Your task to perform on an android device: When is my next meeting? Image 0: 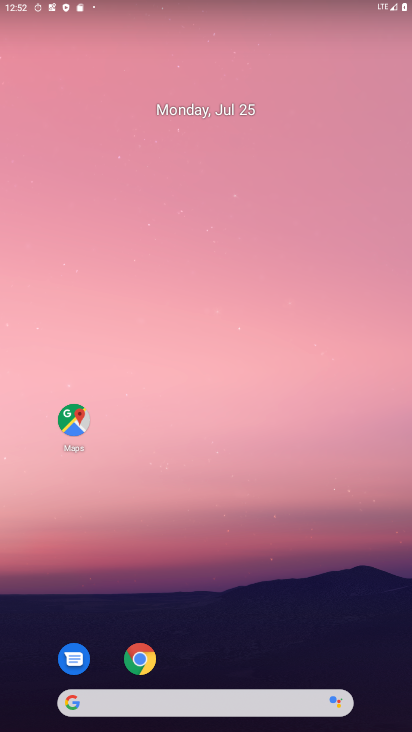
Step 0: drag from (86, 477) to (186, 135)
Your task to perform on an android device: When is my next meeting? Image 1: 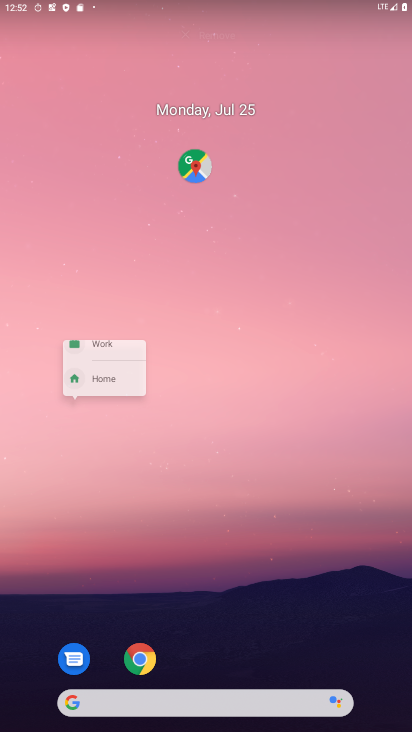
Step 1: drag from (43, 590) to (204, 171)
Your task to perform on an android device: When is my next meeting? Image 2: 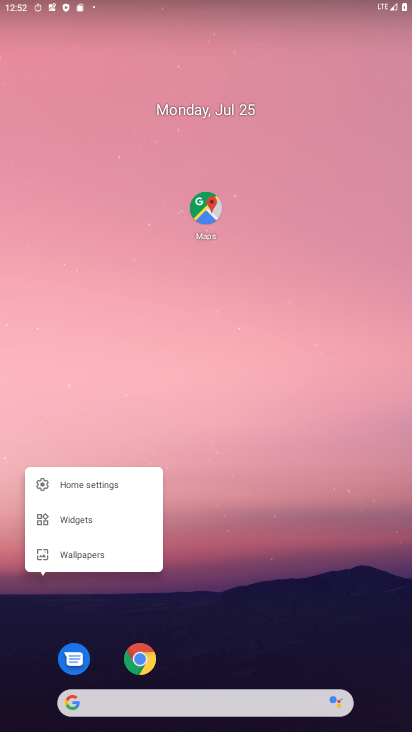
Step 2: drag from (44, 602) to (296, 21)
Your task to perform on an android device: When is my next meeting? Image 3: 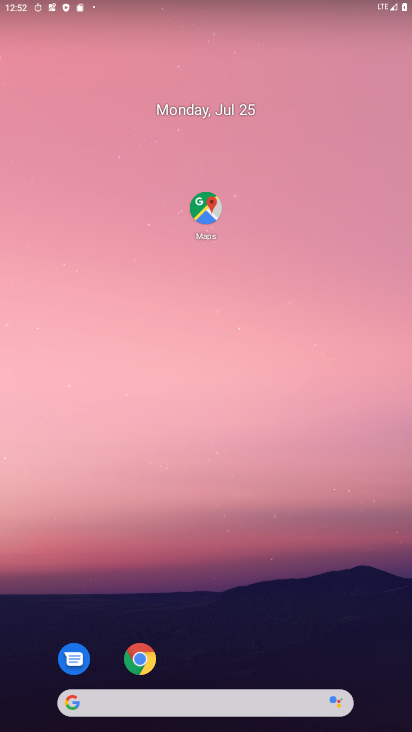
Step 3: drag from (63, 580) to (258, 113)
Your task to perform on an android device: When is my next meeting? Image 4: 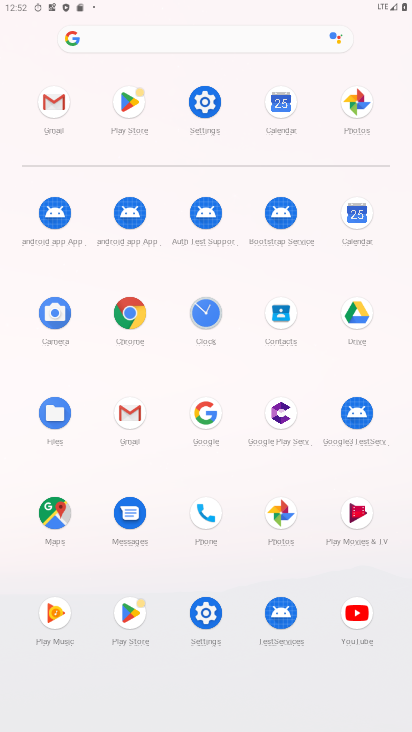
Step 4: click (356, 219)
Your task to perform on an android device: When is my next meeting? Image 5: 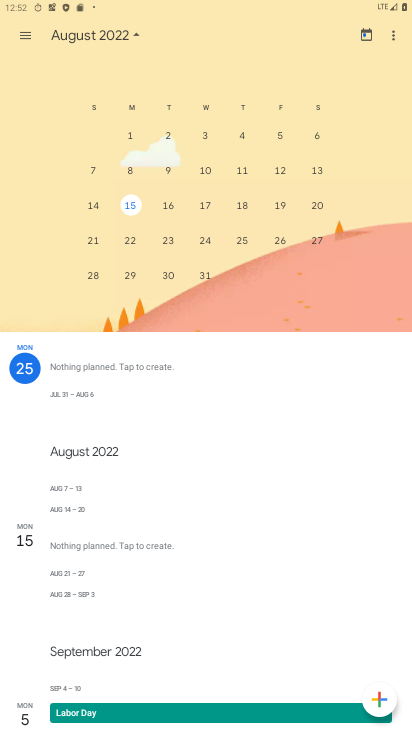
Step 5: task complete